Your task to perform on an android device: Search for sushi restaurants on Maps Image 0: 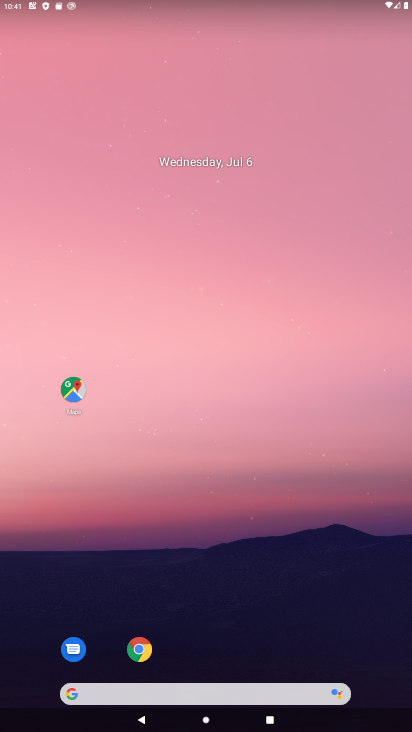
Step 0: drag from (368, 595) to (199, 73)
Your task to perform on an android device: Search for sushi restaurants on Maps Image 1: 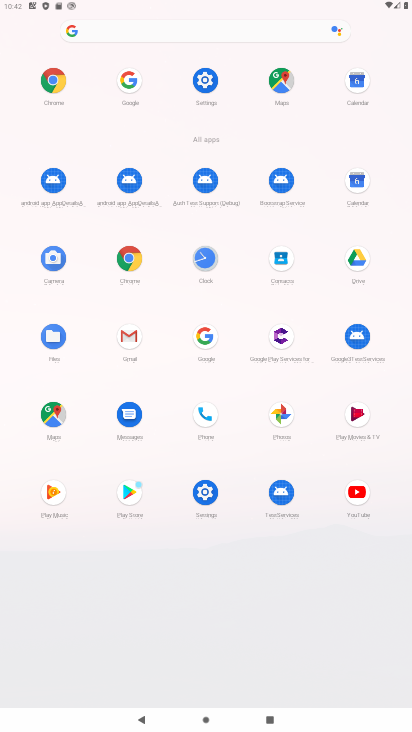
Step 1: click (284, 86)
Your task to perform on an android device: Search for sushi restaurants on Maps Image 2: 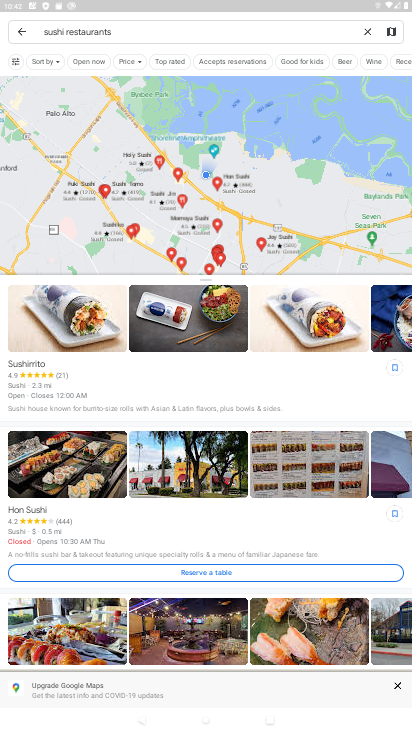
Step 2: task complete